Your task to perform on an android device: Open maps Image 0: 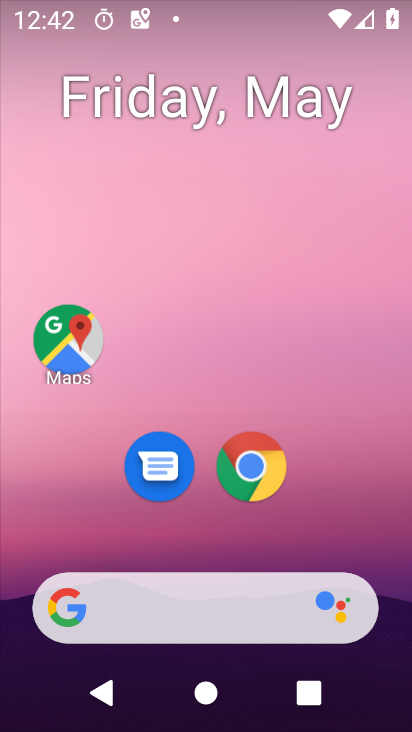
Step 0: drag from (388, 605) to (287, 165)
Your task to perform on an android device: Open maps Image 1: 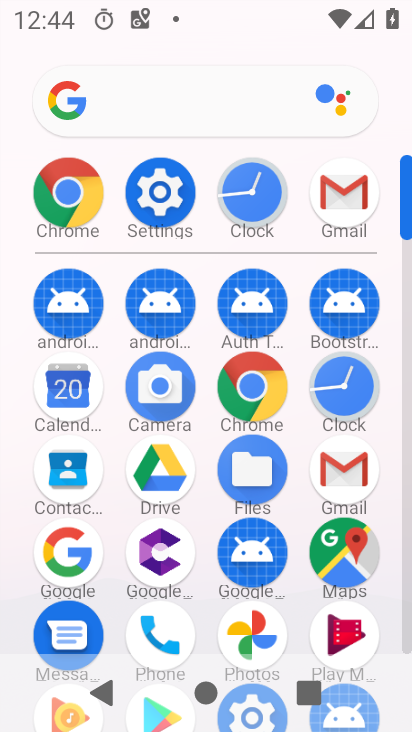
Step 1: click (329, 545)
Your task to perform on an android device: Open maps Image 2: 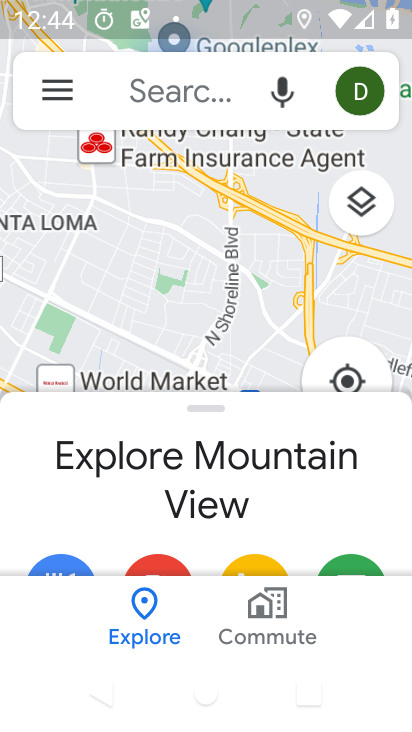
Step 2: task complete